Your task to perform on an android device: change notification settings in the gmail app Image 0: 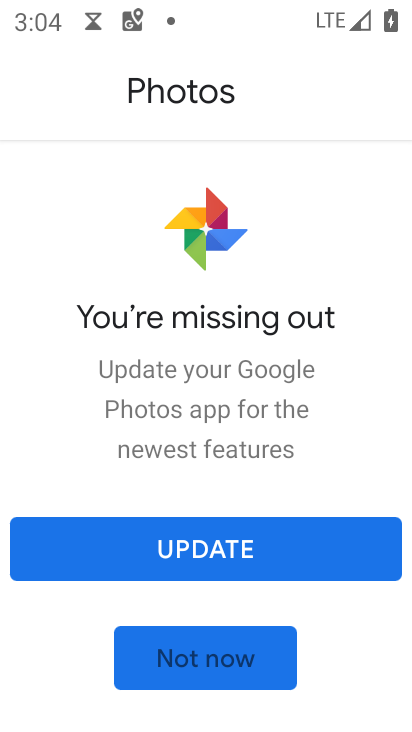
Step 0: press home button
Your task to perform on an android device: change notification settings in the gmail app Image 1: 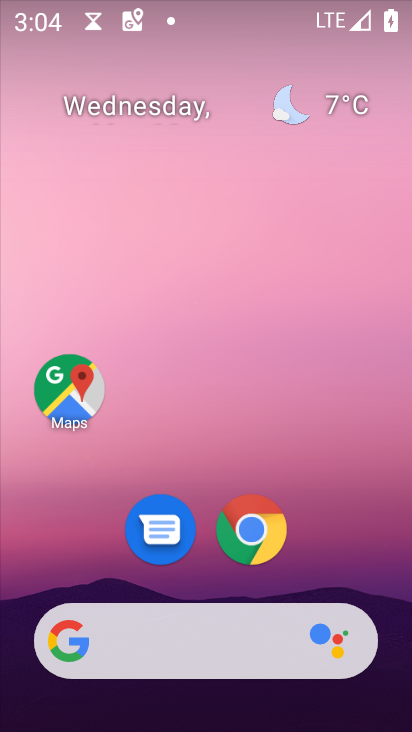
Step 1: drag from (332, 571) to (230, 103)
Your task to perform on an android device: change notification settings in the gmail app Image 2: 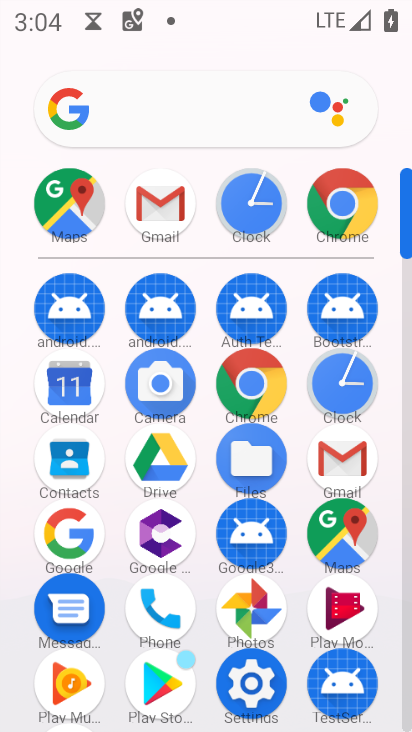
Step 2: click (347, 461)
Your task to perform on an android device: change notification settings in the gmail app Image 3: 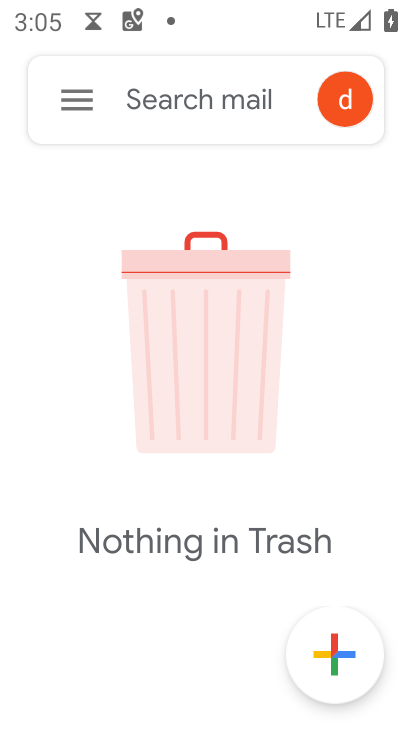
Step 3: click (74, 112)
Your task to perform on an android device: change notification settings in the gmail app Image 4: 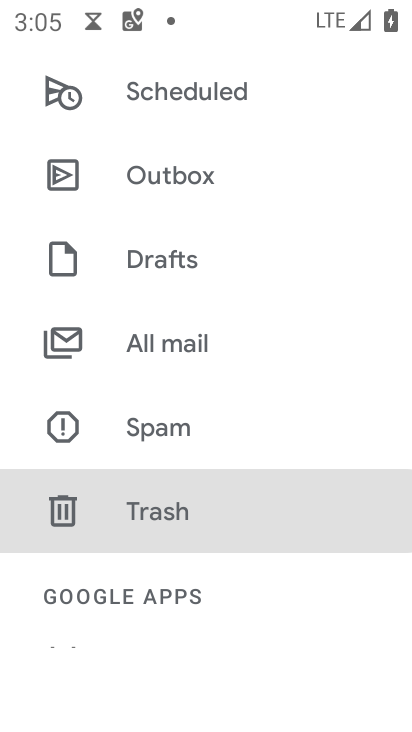
Step 4: drag from (182, 477) to (126, 105)
Your task to perform on an android device: change notification settings in the gmail app Image 5: 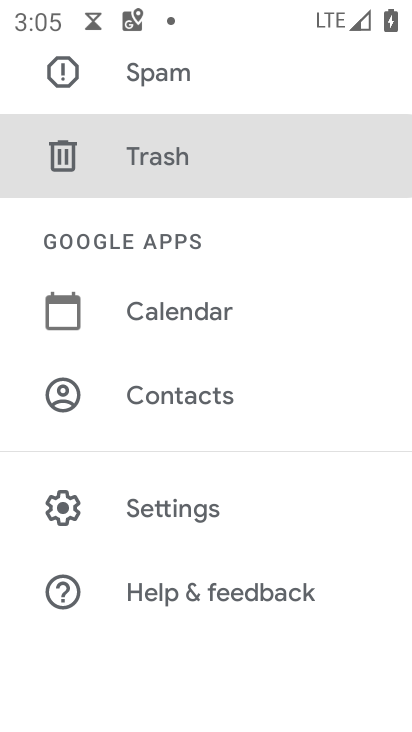
Step 5: click (195, 511)
Your task to perform on an android device: change notification settings in the gmail app Image 6: 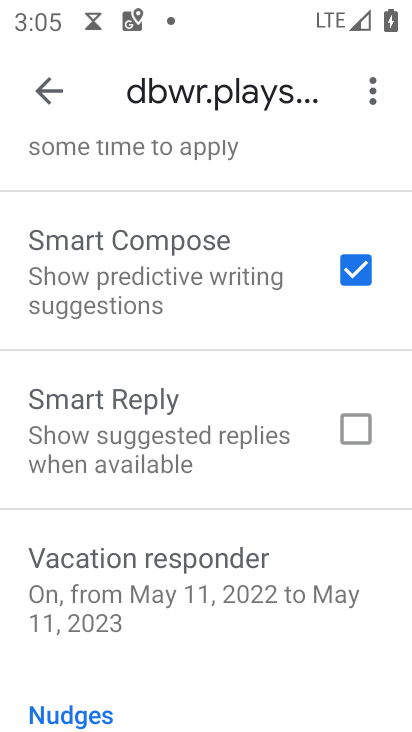
Step 6: drag from (201, 599) to (125, 255)
Your task to perform on an android device: change notification settings in the gmail app Image 7: 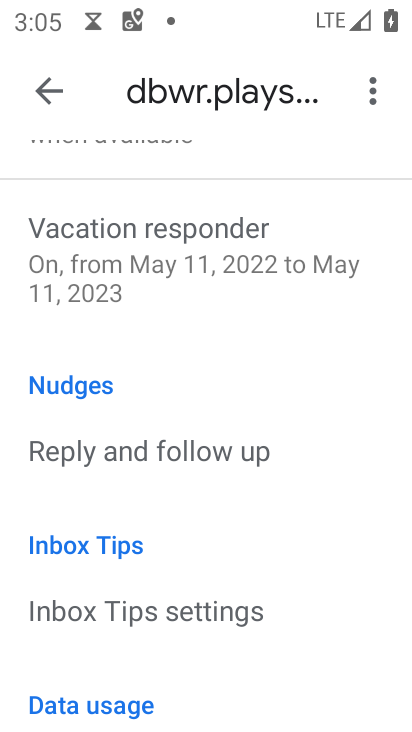
Step 7: drag from (148, 589) to (153, 280)
Your task to perform on an android device: change notification settings in the gmail app Image 8: 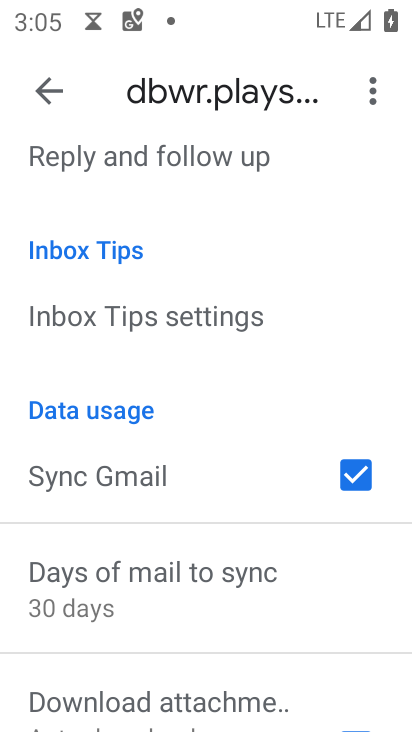
Step 8: drag from (187, 563) to (204, 207)
Your task to perform on an android device: change notification settings in the gmail app Image 9: 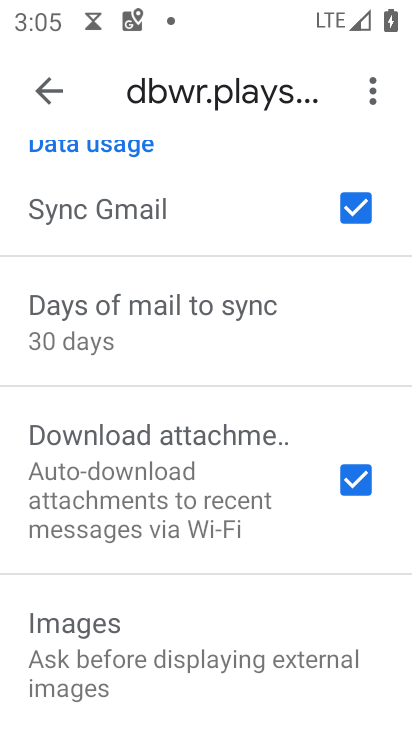
Step 9: drag from (217, 266) to (246, 577)
Your task to perform on an android device: change notification settings in the gmail app Image 10: 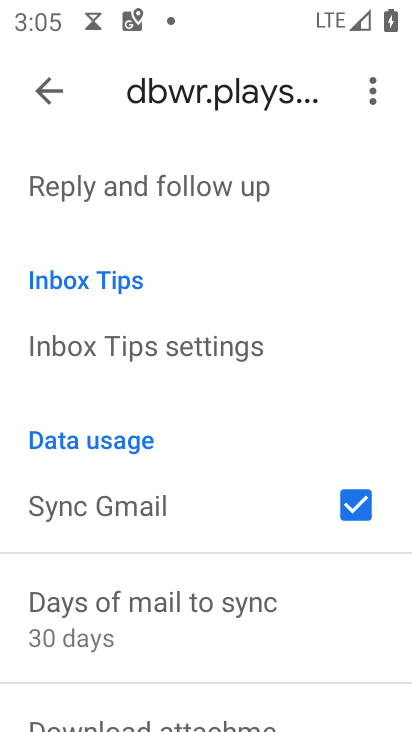
Step 10: drag from (130, 170) to (183, 595)
Your task to perform on an android device: change notification settings in the gmail app Image 11: 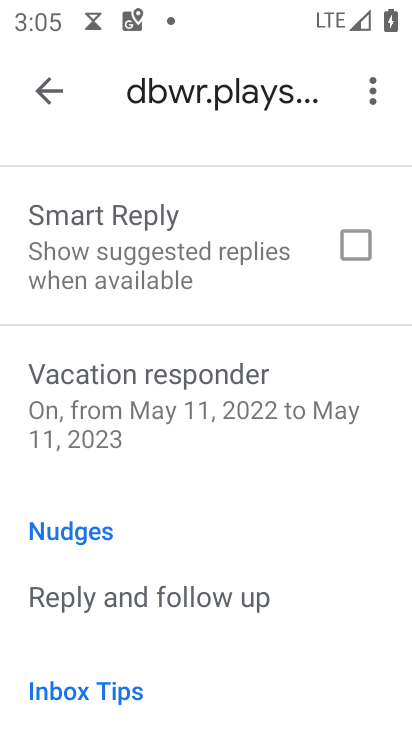
Step 11: drag from (238, 241) to (253, 612)
Your task to perform on an android device: change notification settings in the gmail app Image 12: 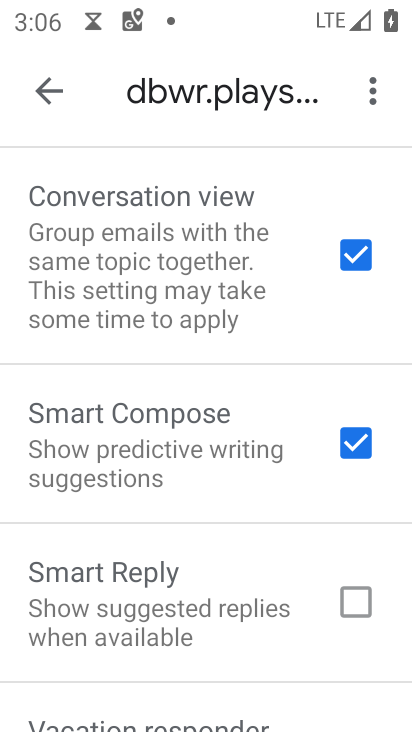
Step 12: drag from (205, 242) to (254, 596)
Your task to perform on an android device: change notification settings in the gmail app Image 13: 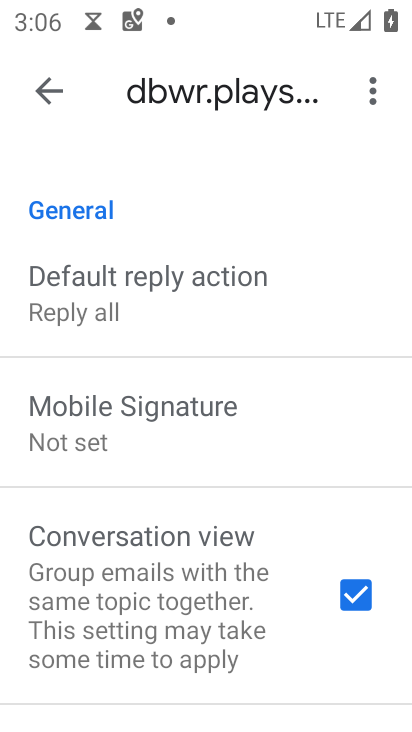
Step 13: drag from (218, 322) to (259, 621)
Your task to perform on an android device: change notification settings in the gmail app Image 14: 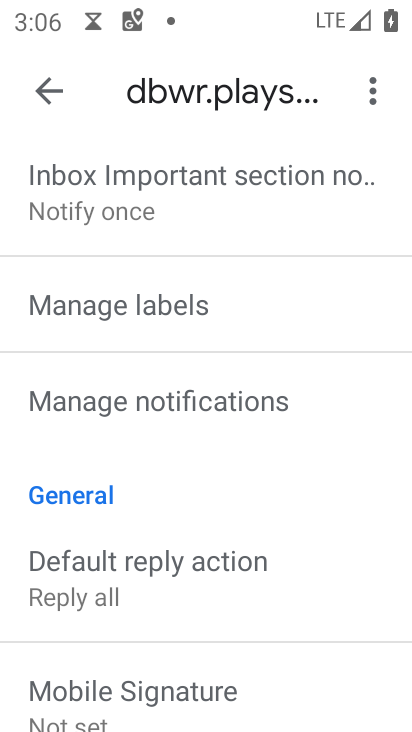
Step 14: drag from (221, 170) to (270, 620)
Your task to perform on an android device: change notification settings in the gmail app Image 15: 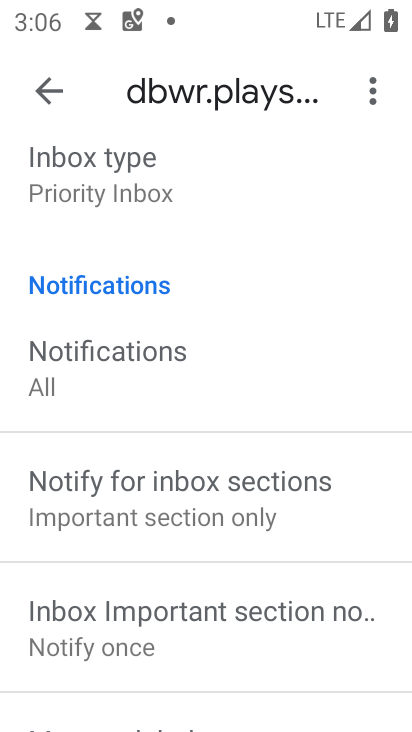
Step 15: click (125, 357)
Your task to perform on an android device: change notification settings in the gmail app Image 16: 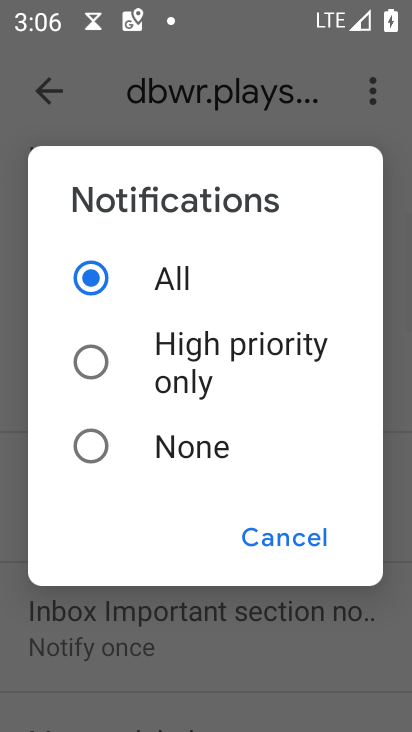
Step 16: click (96, 361)
Your task to perform on an android device: change notification settings in the gmail app Image 17: 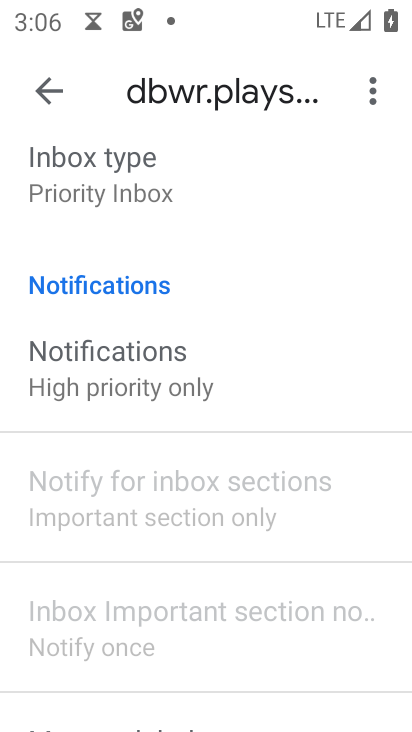
Step 17: task complete